Your task to perform on an android device: Search for logitech g pro on target.com, select the first entry, add it to the cart, then select checkout. Image 0: 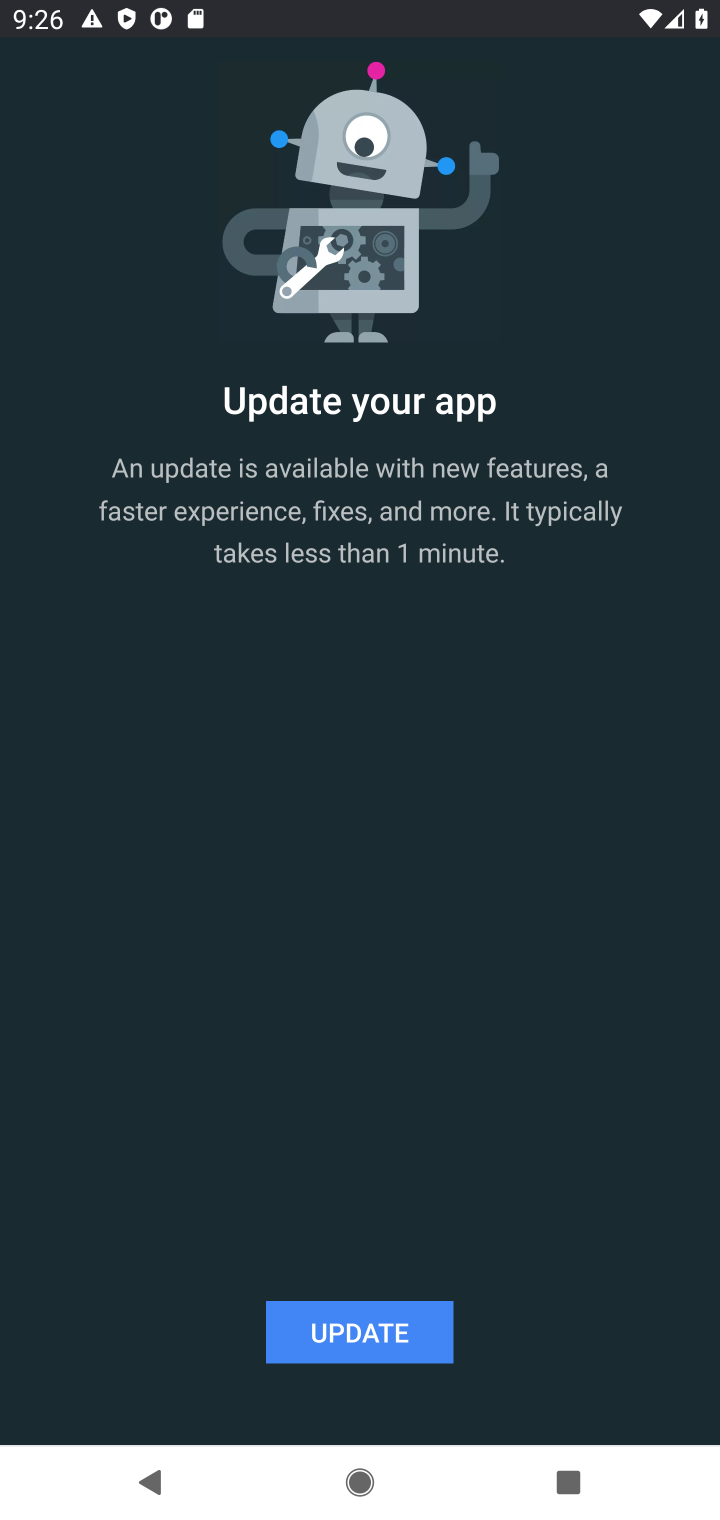
Step 0: press home button
Your task to perform on an android device: Search for logitech g pro on target.com, select the first entry, add it to the cart, then select checkout. Image 1: 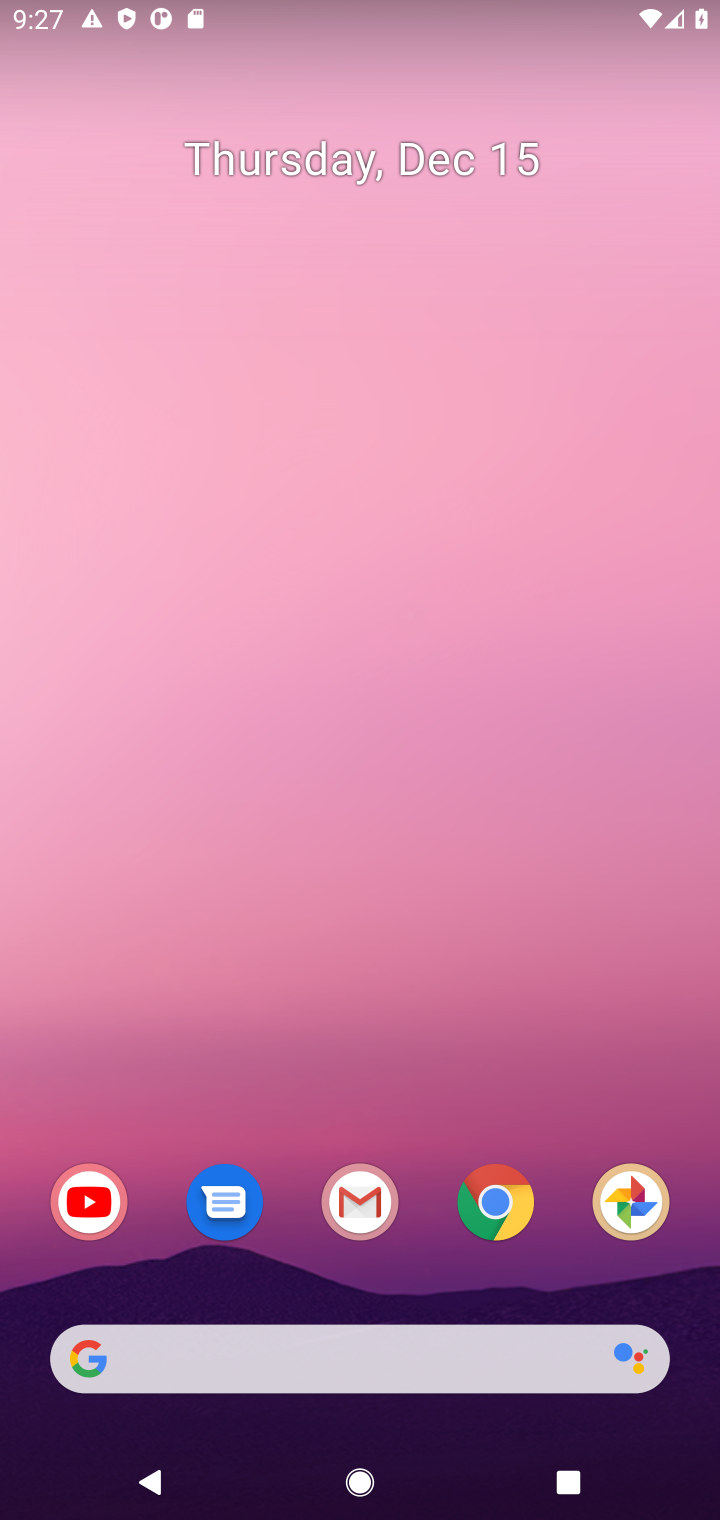
Step 1: click (491, 1200)
Your task to perform on an android device: Search for logitech g pro on target.com, select the first entry, add it to the cart, then select checkout. Image 2: 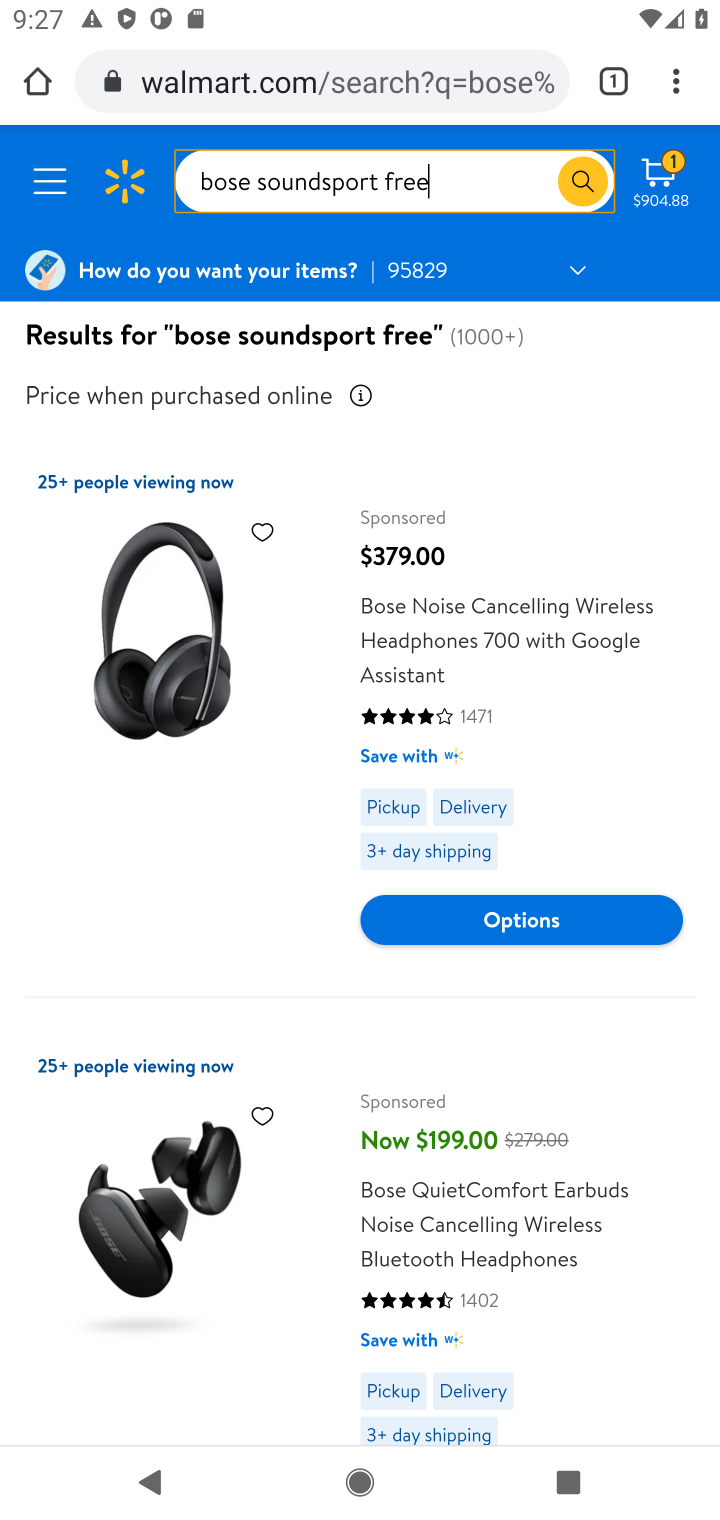
Step 2: click (271, 88)
Your task to perform on an android device: Search for logitech g pro on target.com, select the first entry, add it to the cart, then select checkout. Image 3: 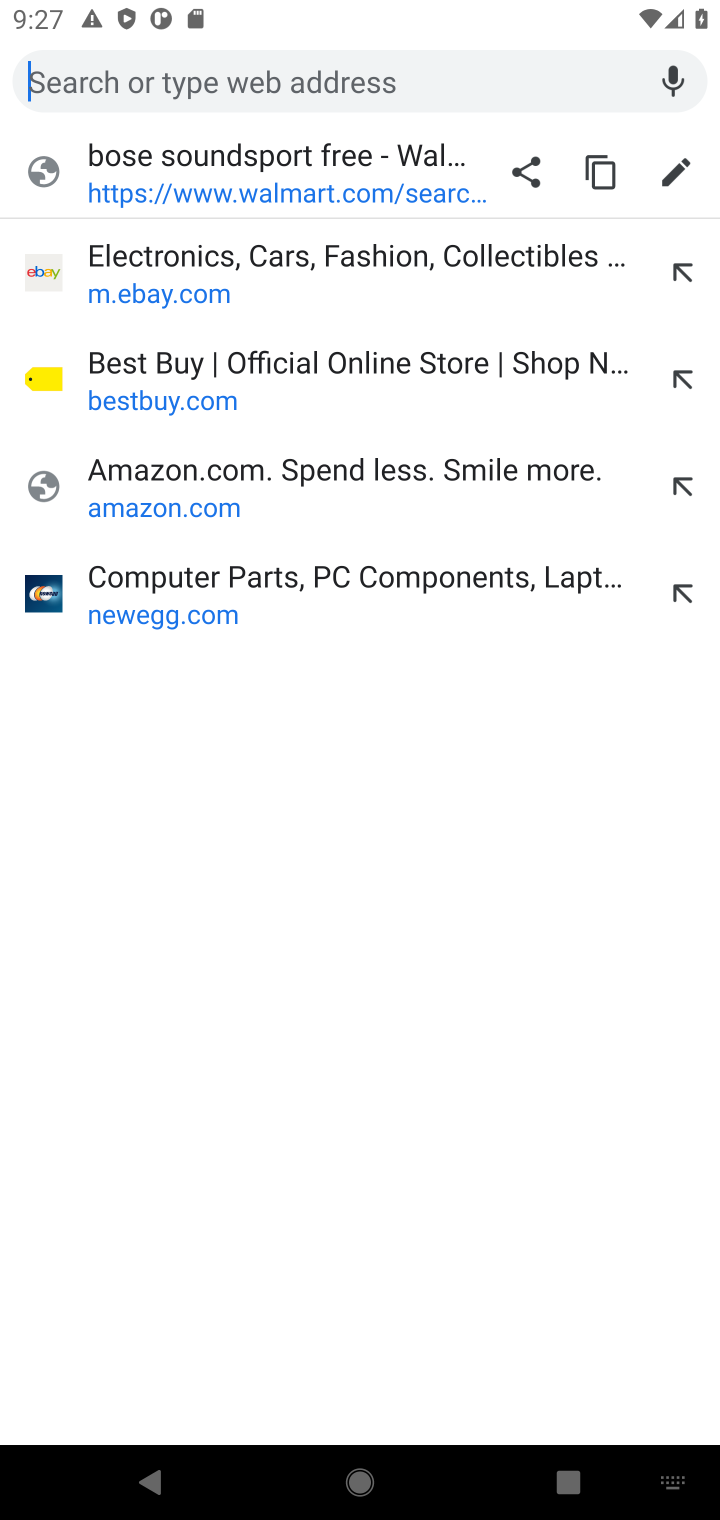
Step 3: type "target.com"
Your task to perform on an android device: Search for logitech g pro on target.com, select the first entry, add it to the cart, then select checkout. Image 4: 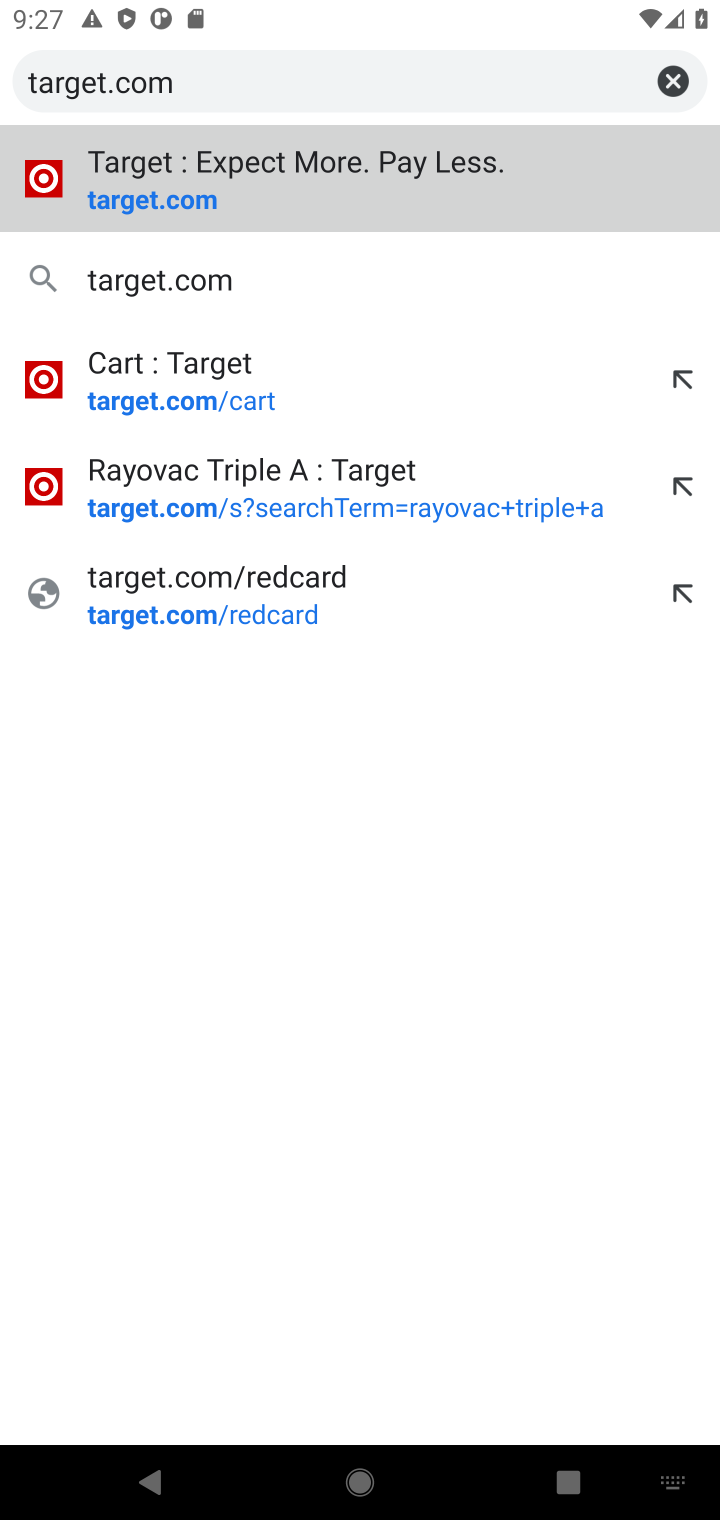
Step 4: click (152, 190)
Your task to perform on an android device: Search for logitech g pro on target.com, select the first entry, add it to the cart, then select checkout. Image 5: 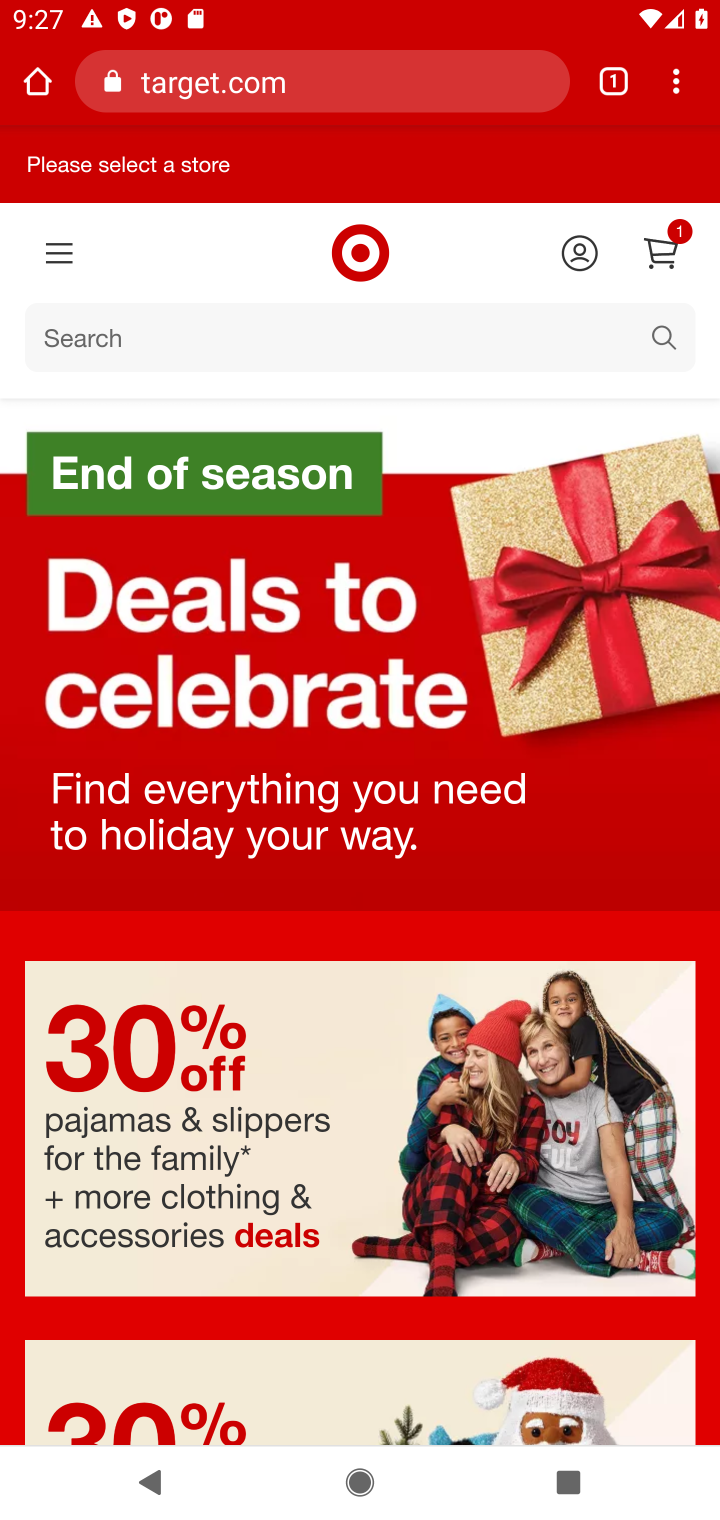
Step 5: click (92, 318)
Your task to perform on an android device: Search for logitech g pro on target.com, select the first entry, add it to the cart, then select checkout. Image 6: 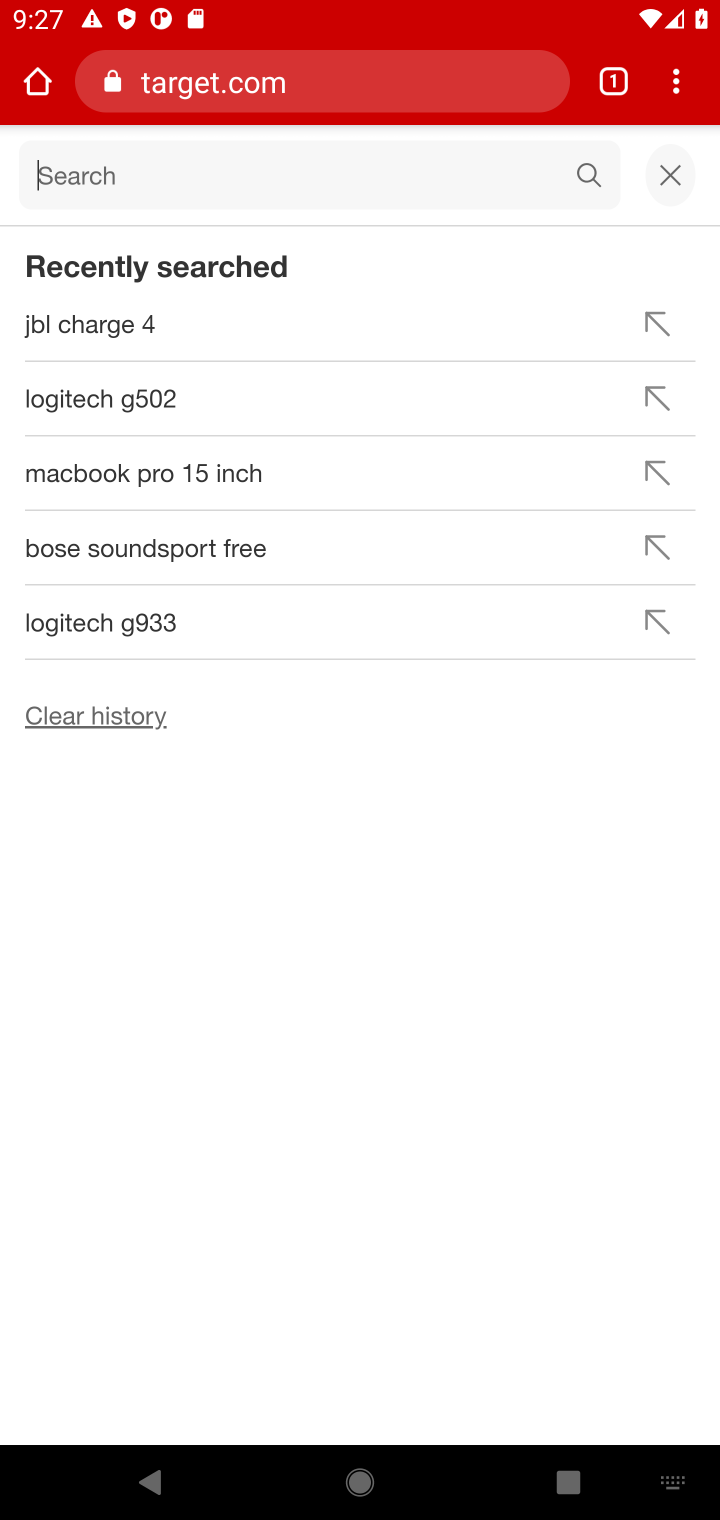
Step 6: type "logitech g pro"
Your task to perform on an android device: Search for logitech g pro on target.com, select the first entry, add it to the cart, then select checkout. Image 7: 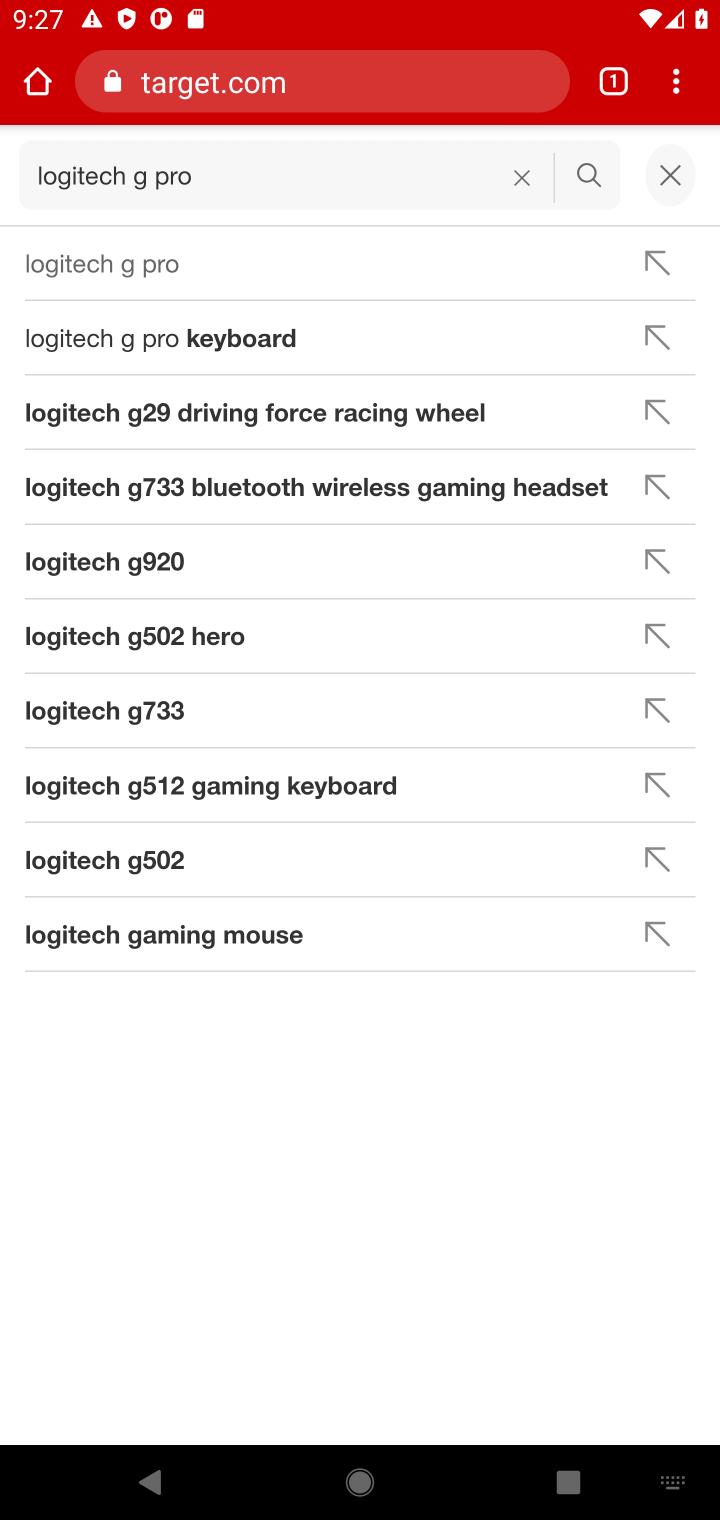
Step 7: click (104, 256)
Your task to perform on an android device: Search for logitech g pro on target.com, select the first entry, add it to the cart, then select checkout. Image 8: 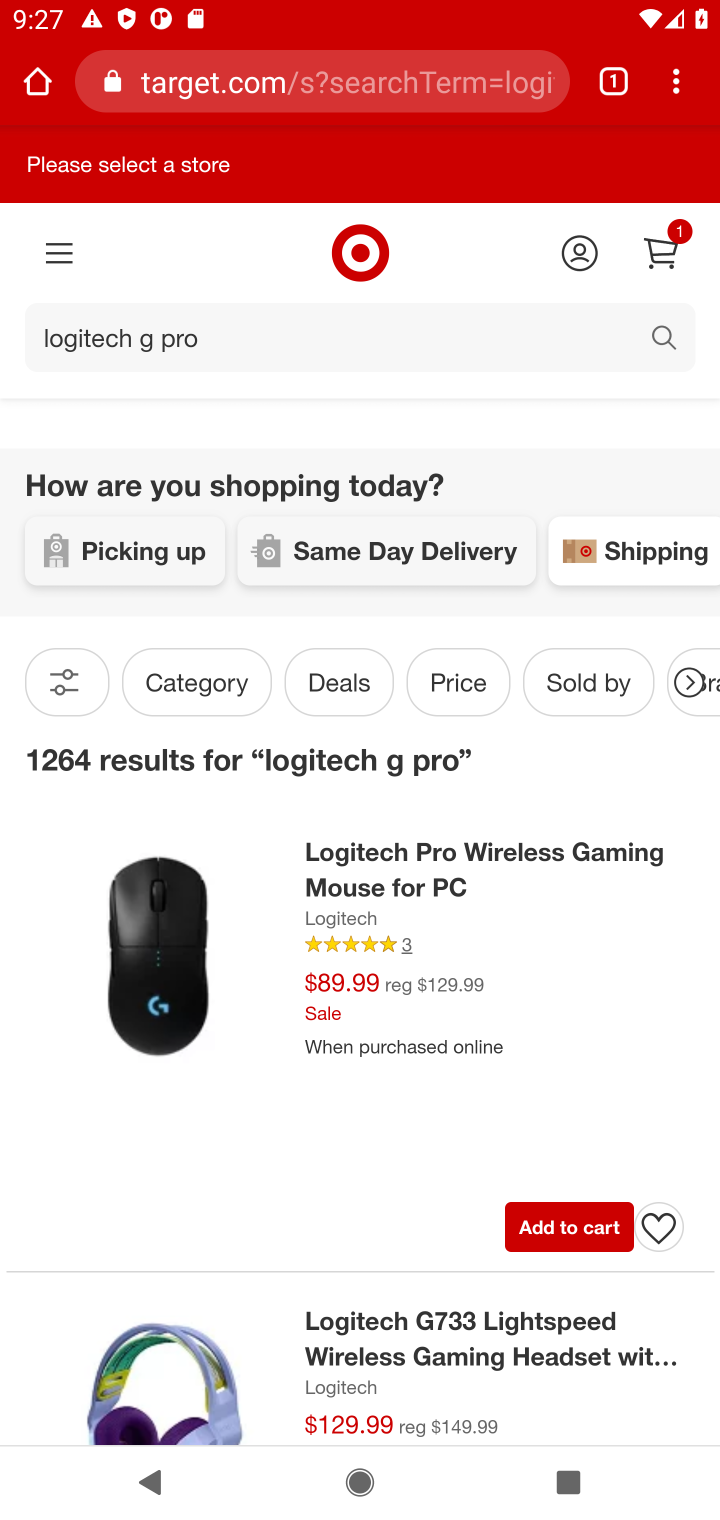
Step 8: task complete